Your task to perform on an android device: Open wifi settings Image 0: 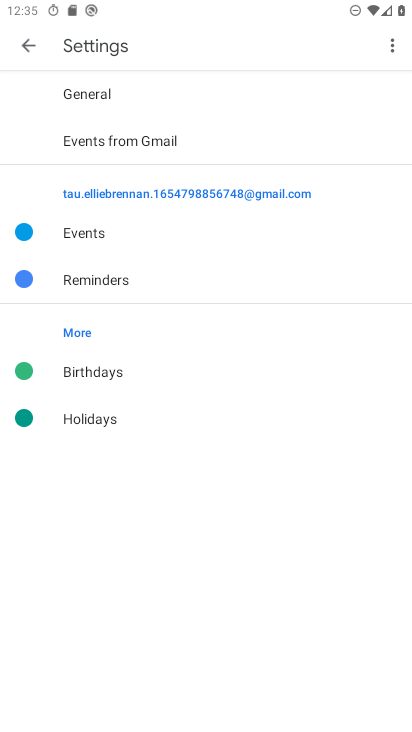
Step 0: press home button
Your task to perform on an android device: Open wifi settings Image 1: 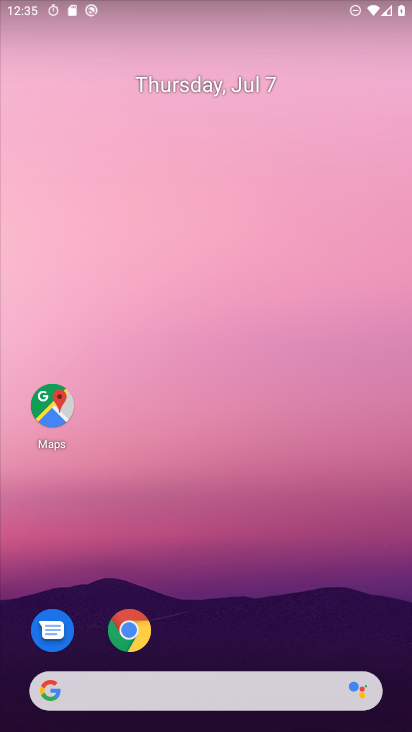
Step 1: drag from (251, 564) to (348, 37)
Your task to perform on an android device: Open wifi settings Image 2: 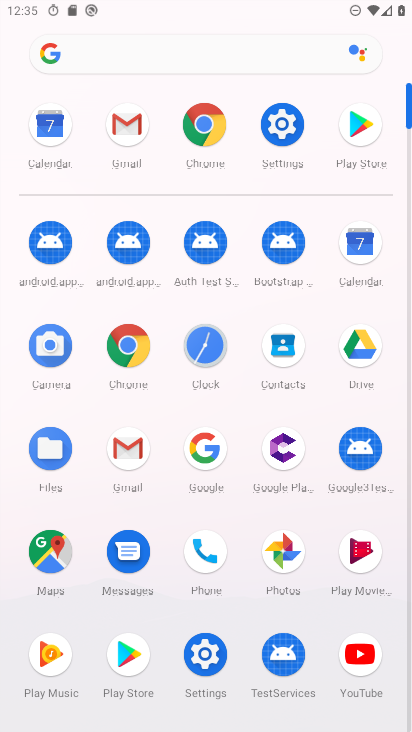
Step 2: click (288, 141)
Your task to perform on an android device: Open wifi settings Image 3: 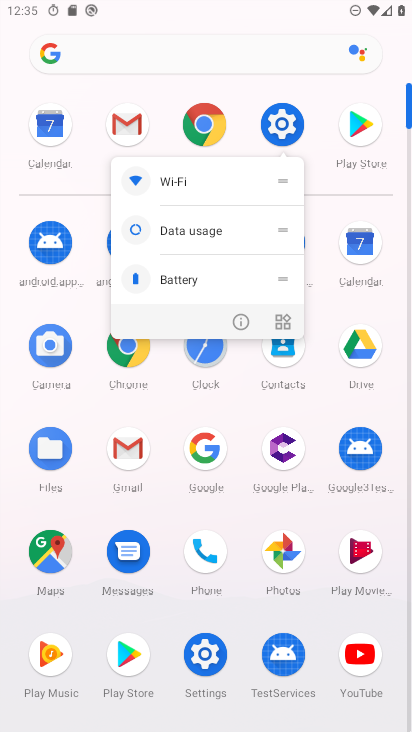
Step 3: click (288, 142)
Your task to perform on an android device: Open wifi settings Image 4: 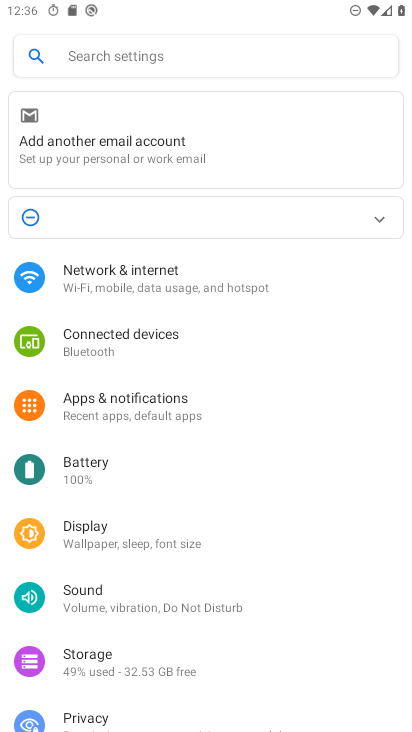
Step 4: click (162, 288)
Your task to perform on an android device: Open wifi settings Image 5: 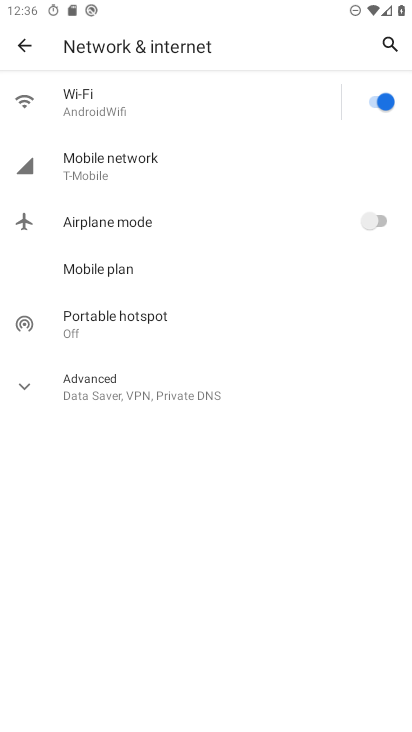
Step 5: task complete